Your task to perform on an android device: see sites visited before in the chrome app Image 0: 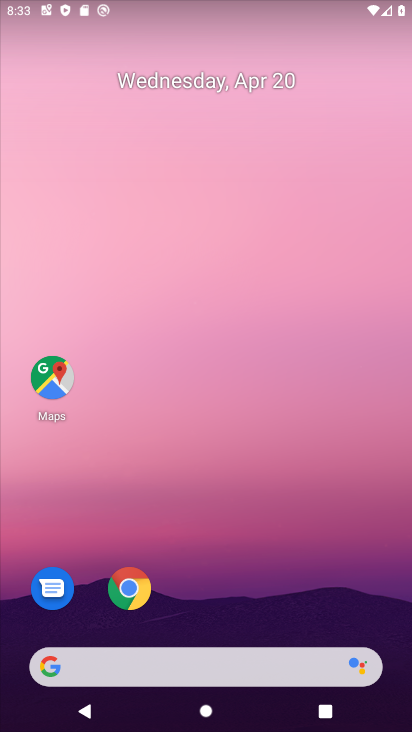
Step 0: click (126, 583)
Your task to perform on an android device: see sites visited before in the chrome app Image 1: 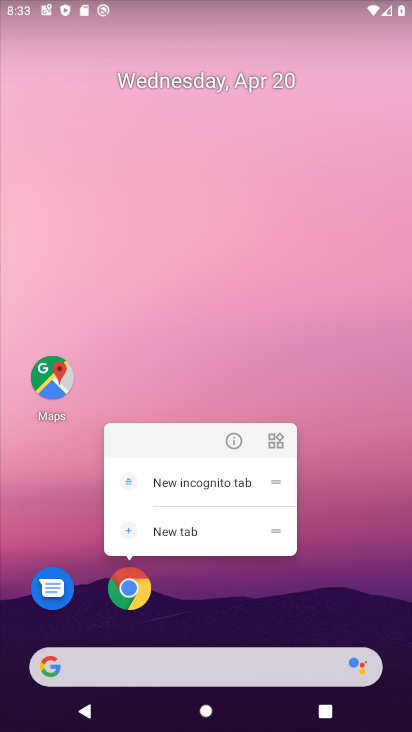
Step 1: click (130, 584)
Your task to perform on an android device: see sites visited before in the chrome app Image 2: 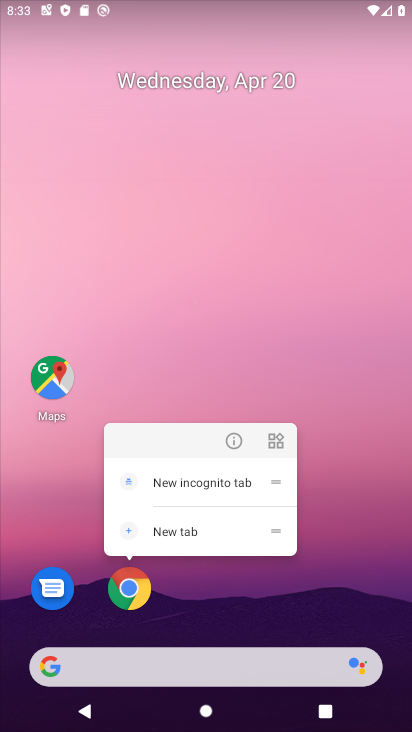
Step 2: click (130, 584)
Your task to perform on an android device: see sites visited before in the chrome app Image 3: 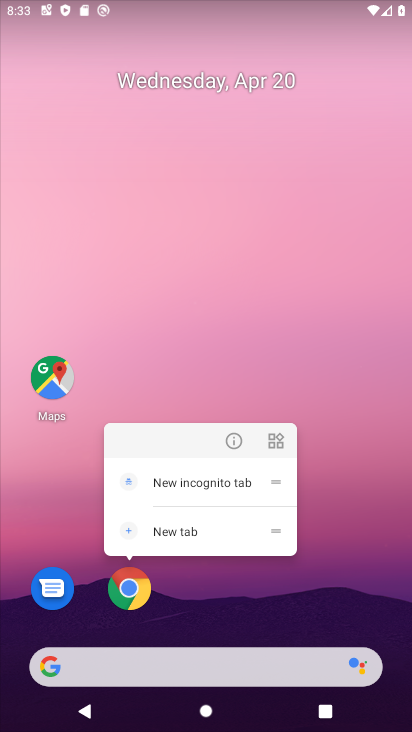
Step 3: click (130, 584)
Your task to perform on an android device: see sites visited before in the chrome app Image 4: 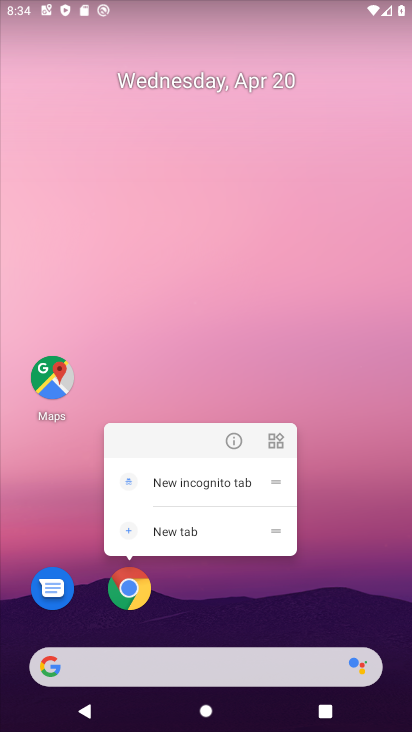
Step 4: click (275, 601)
Your task to perform on an android device: see sites visited before in the chrome app Image 5: 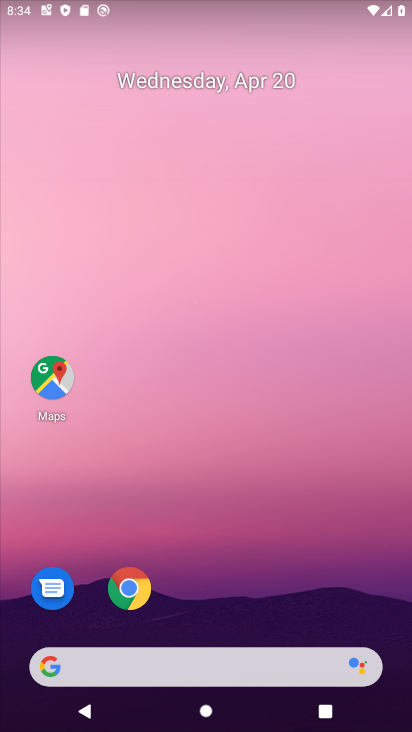
Step 5: click (137, 583)
Your task to perform on an android device: see sites visited before in the chrome app Image 6: 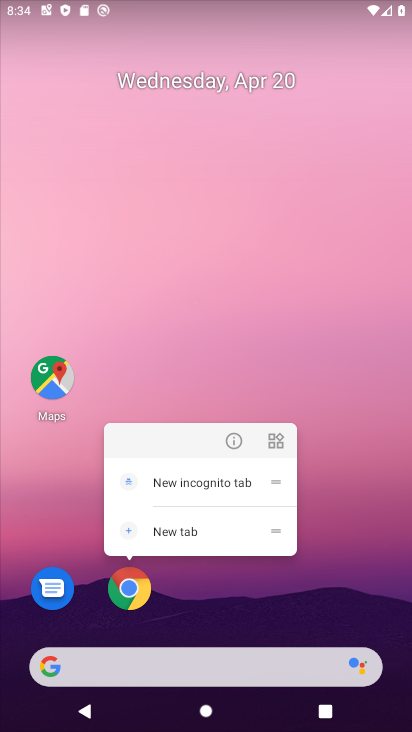
Step 6: click (261, 598)
Your task to perform on an android device: see sites visited before in the chrome app Image 7: 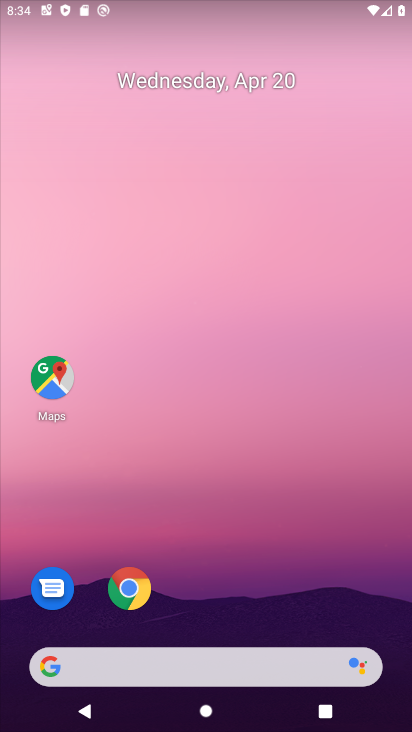
Step 7: click (272, 158)
Your task to perform on an android device: see sites visited before in the chrome app Image 8: 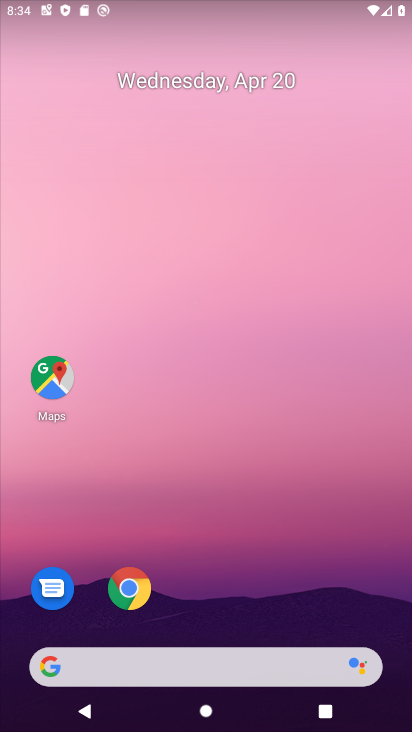
Step 8: click (238, 204)
Your task to perform on an android device: see sites visited before in the chrome app Image 9: 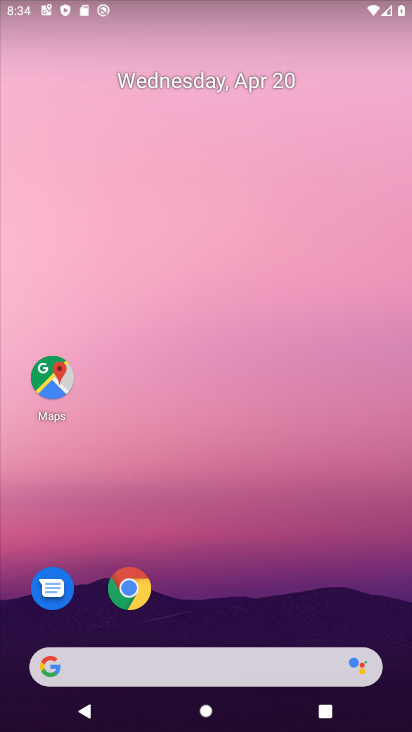
Step 9: click (137, 585)
Your task to perform on an android device: see sites visited before in the chrome app Image 10: 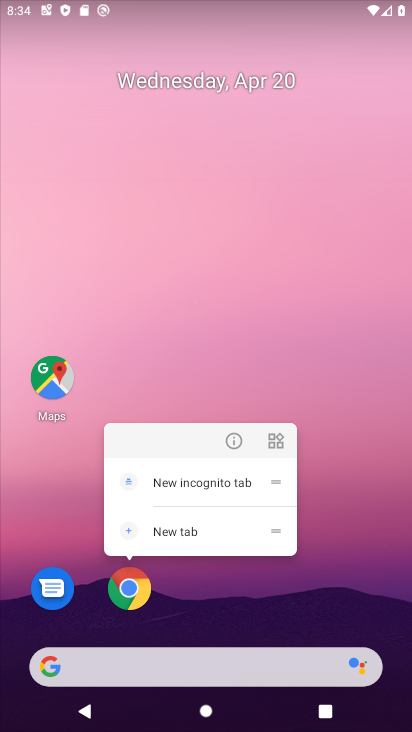
Step 10: click (278, 625)
Your task to perform on an android device: see sites visited before in the chrome app Image 11: 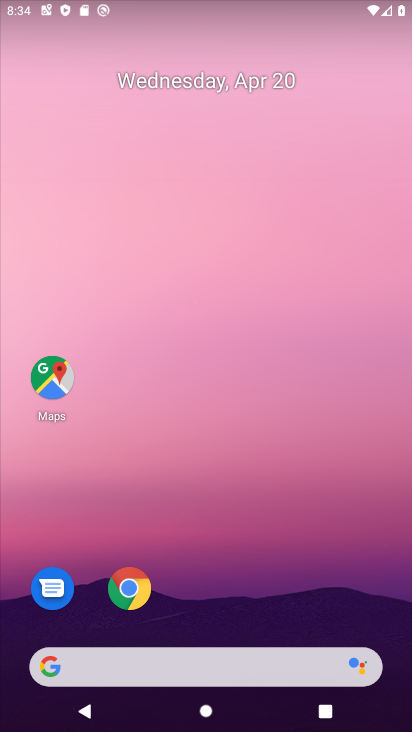
Step 11: click (126, 582)
Your task to perform on an android device: see sites visited before in the chrome app Image 12: 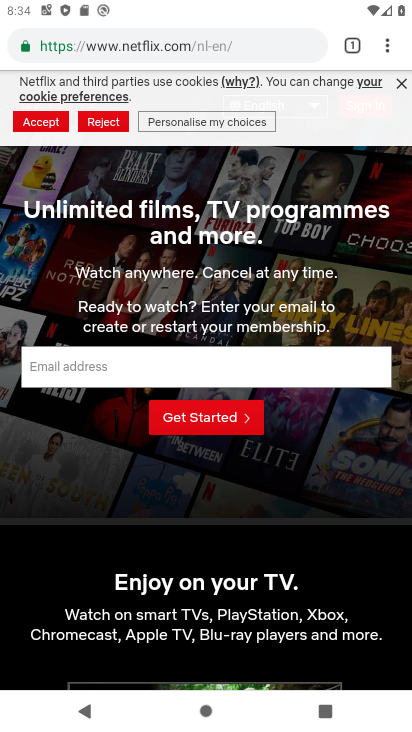
Step 12: click (386, 39)
Your task to perform on an android device: see sites visited before in the chrome app Image 13: 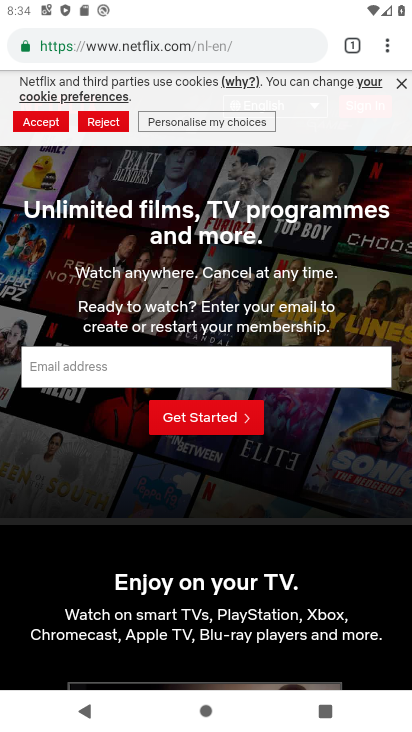
Step 13: click (389, 43)
Your task to perform on an android device: see sites visited before in the chrome app Image 14: 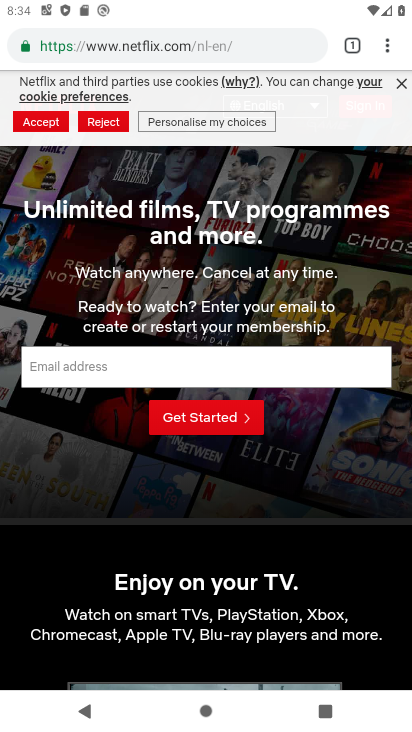
Step 14: click (381, 42)
Your task to perform on an android device: see sites visited before in the chrome app Image 15: 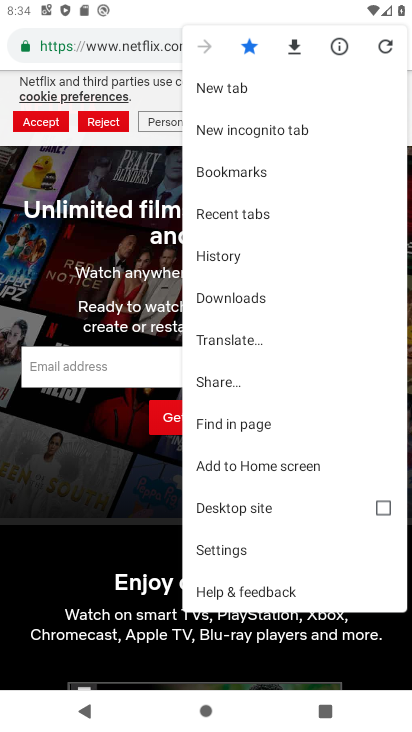
Step 15: click (246, 255)
Your task to perform on an android device: see sites visited before in the chrome app Image 16: 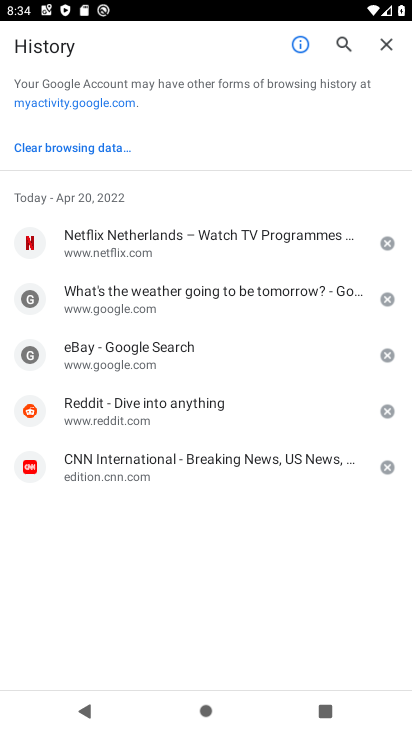
Step 16: task complete